Your task to perform on an android device: turn off airplane mode Image 0: 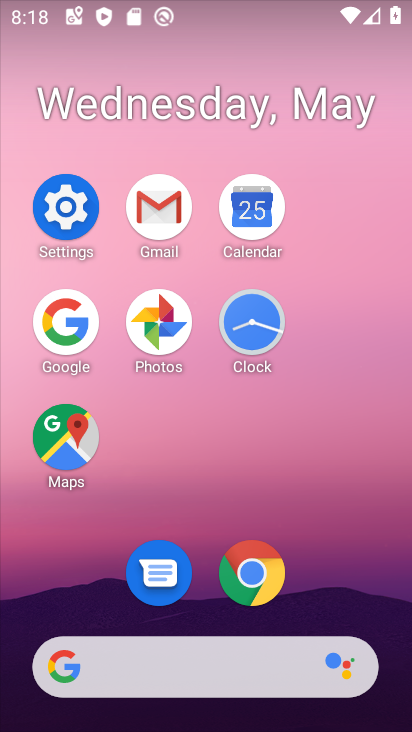
Step 0: click (75, 221)
Your task to perform on an android device: turn off airplane mode Image 1: 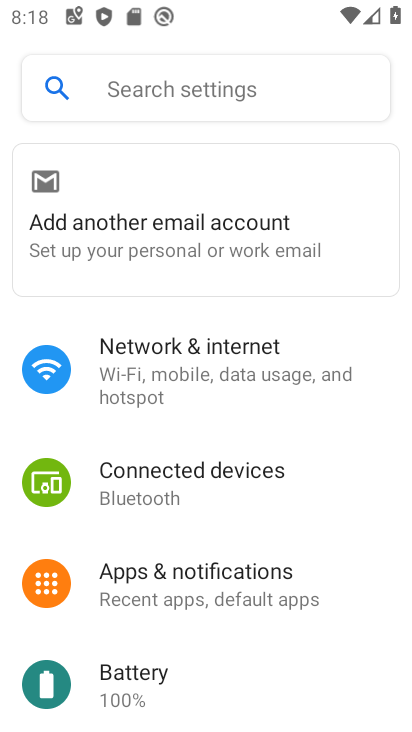
Step 1: click (315, 351)
Your task to perform on an android device: turn off airplane mode Image 2: 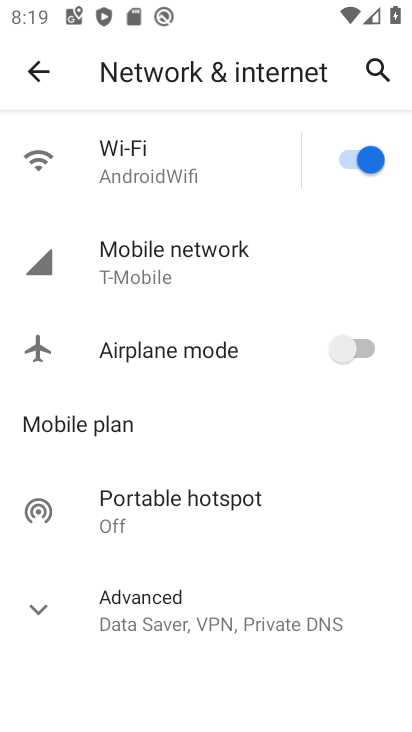
Step 2: task complete